Your task to perform on an android device: choose inbox layout in the gmail app Image 0: 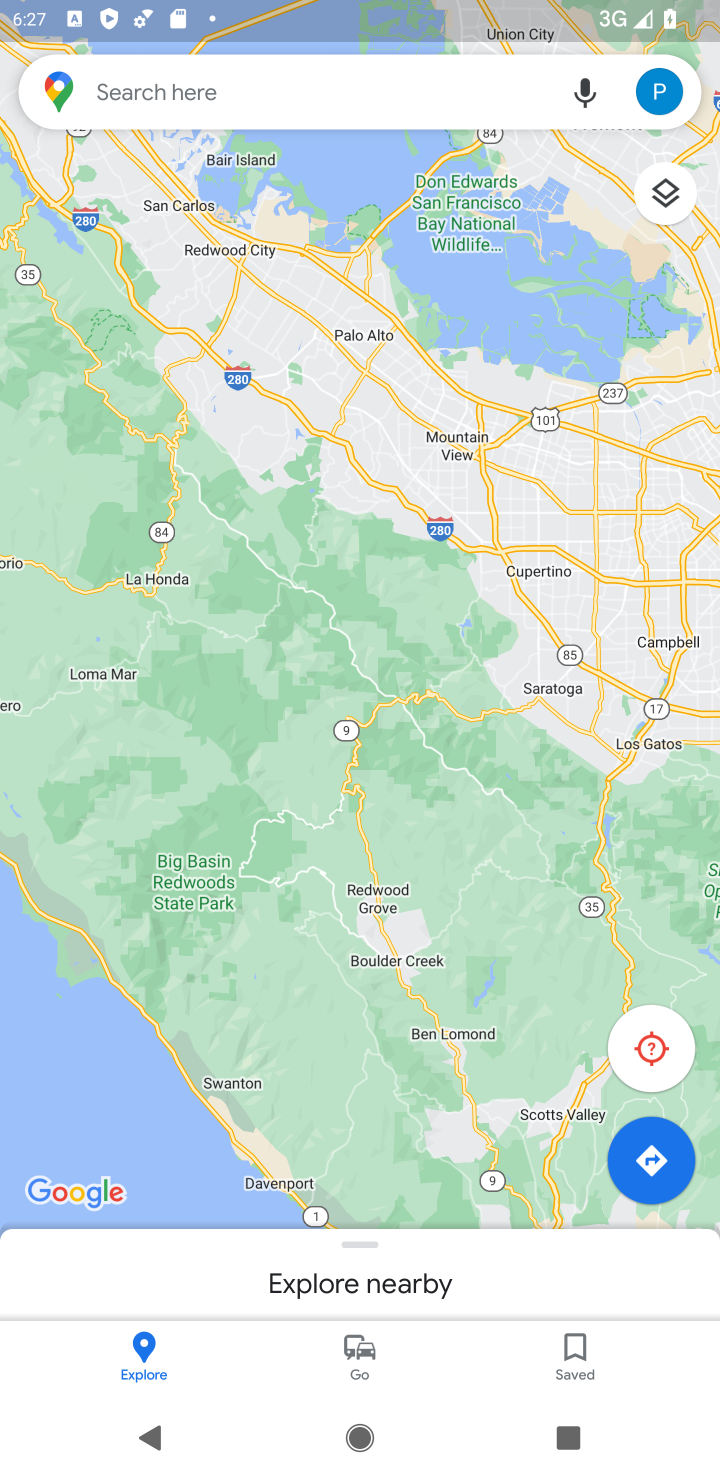
Step 0: press home button
Your task to perform on an android device: choose inbox layout in the gmail app Image 1: 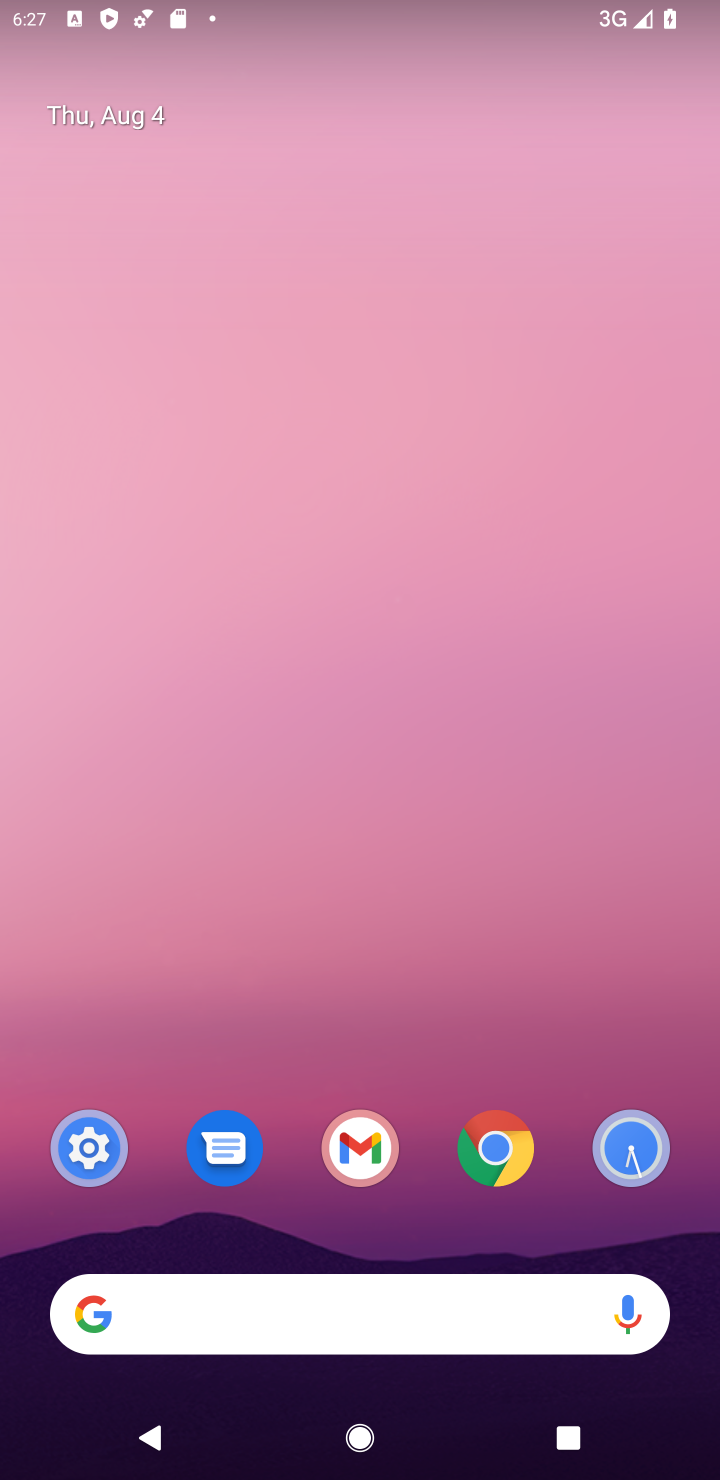
Step 1: click (356, 1147)
Your task to perform on an android device: choose inbox layout in the gmail app Image 2: 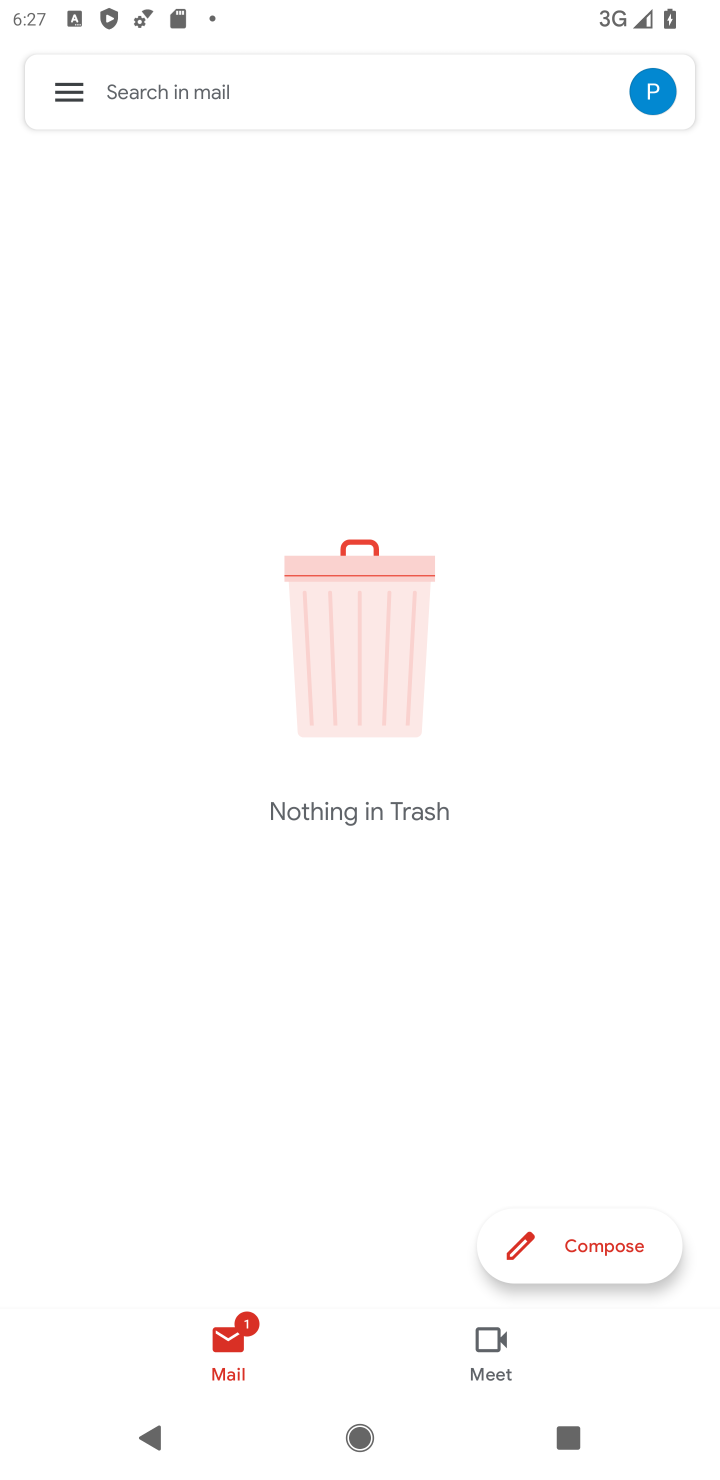
Step 2: click (59, 90)
Your task to perform on an android device: choose inbox layout in the gmail app Image 3: 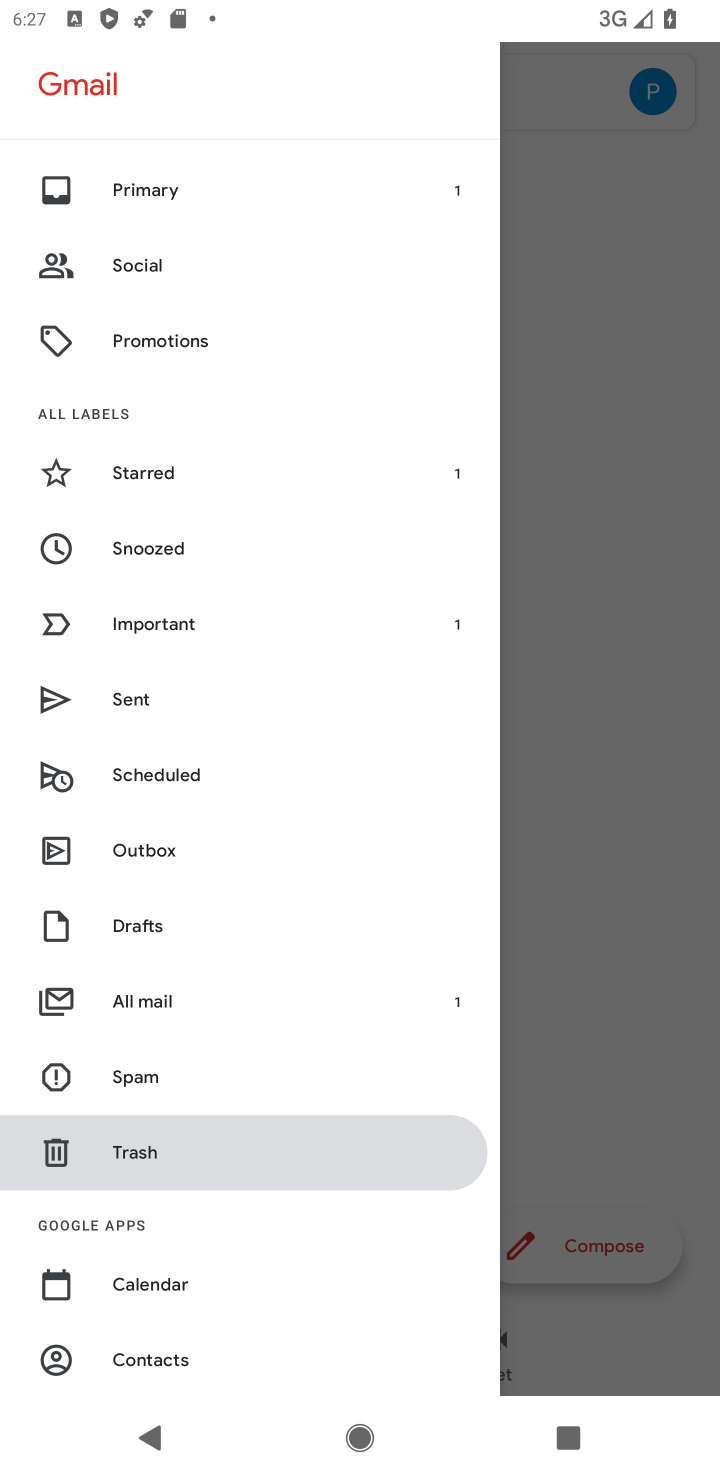
Step 3: drag from (329, 1191) to (301, 581)
Your task to perform on an android device: choose inbox layout in the gmail app Image 4: 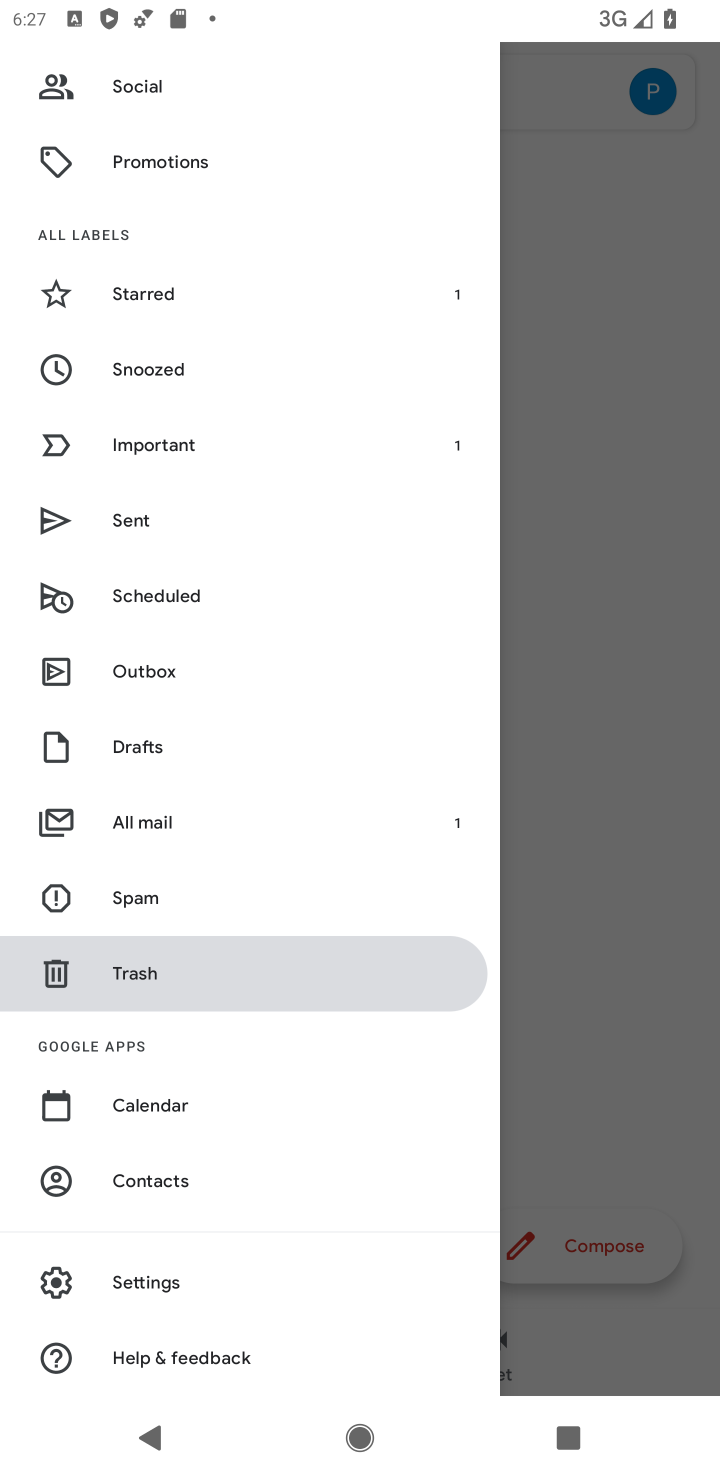
Step 4: click (114, 1286)
Your task to perform on an android device: choose inbox layout in the gmail app Image 5: 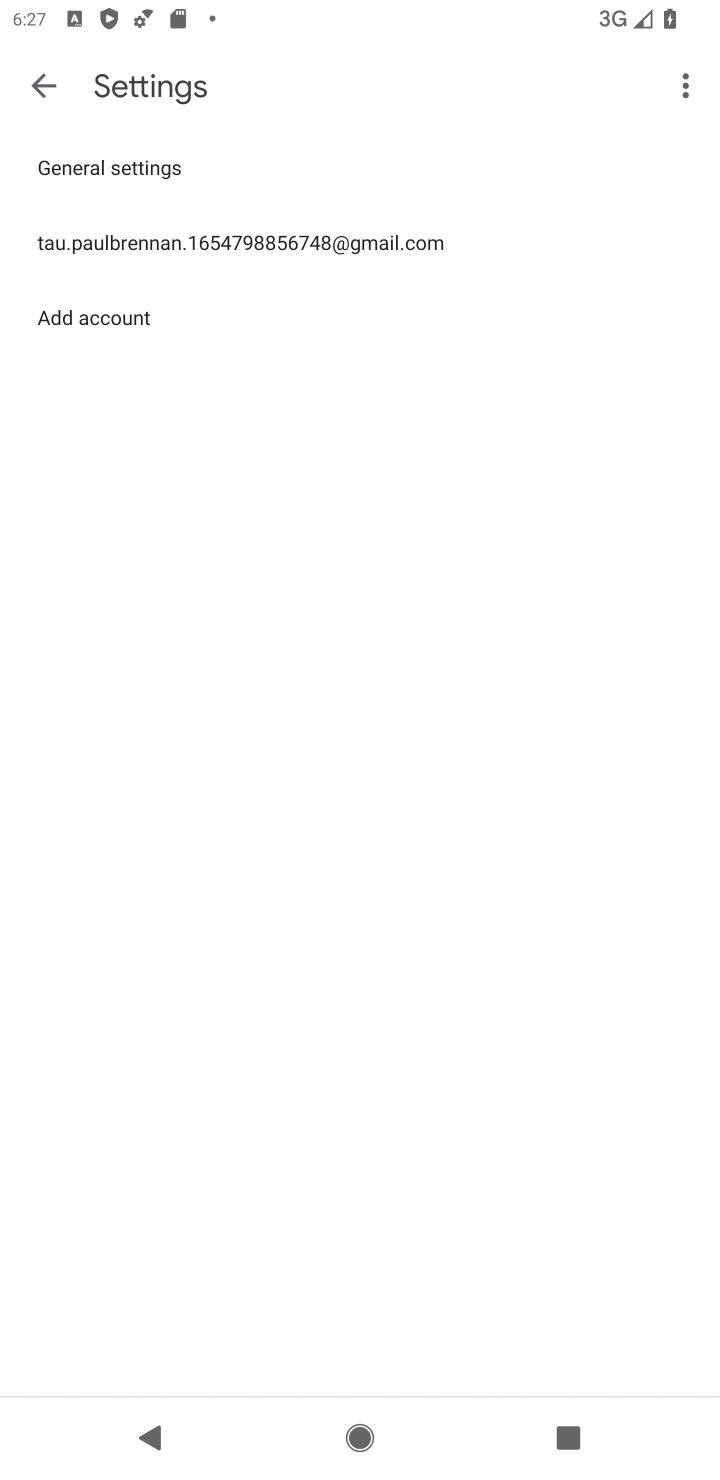
Step 5: click (239, 232)
Your task to perform on an android device: choose inbox layout in the gmail app Image 6: 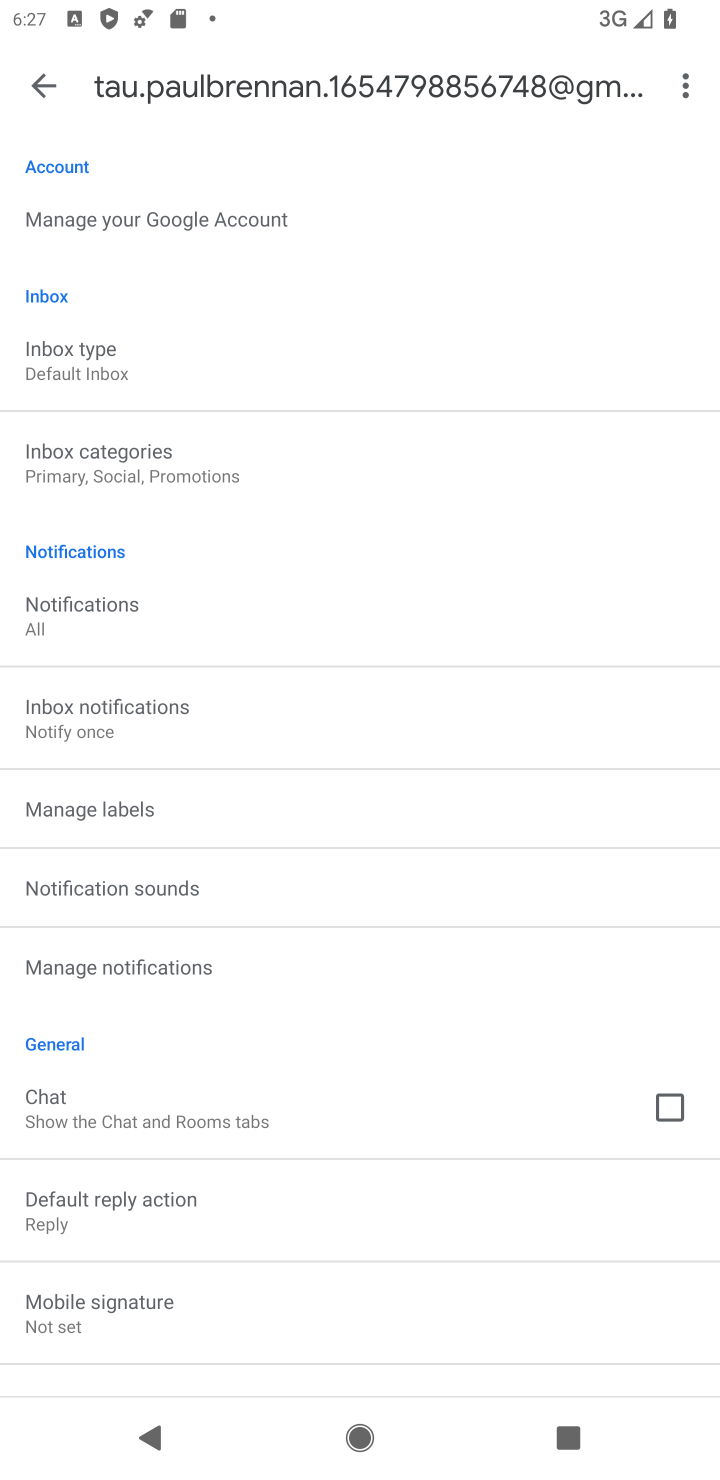
Step 6: click (86, 359)
Your task to perform on an android device: choose inbox layout in the gmail app Image 7: 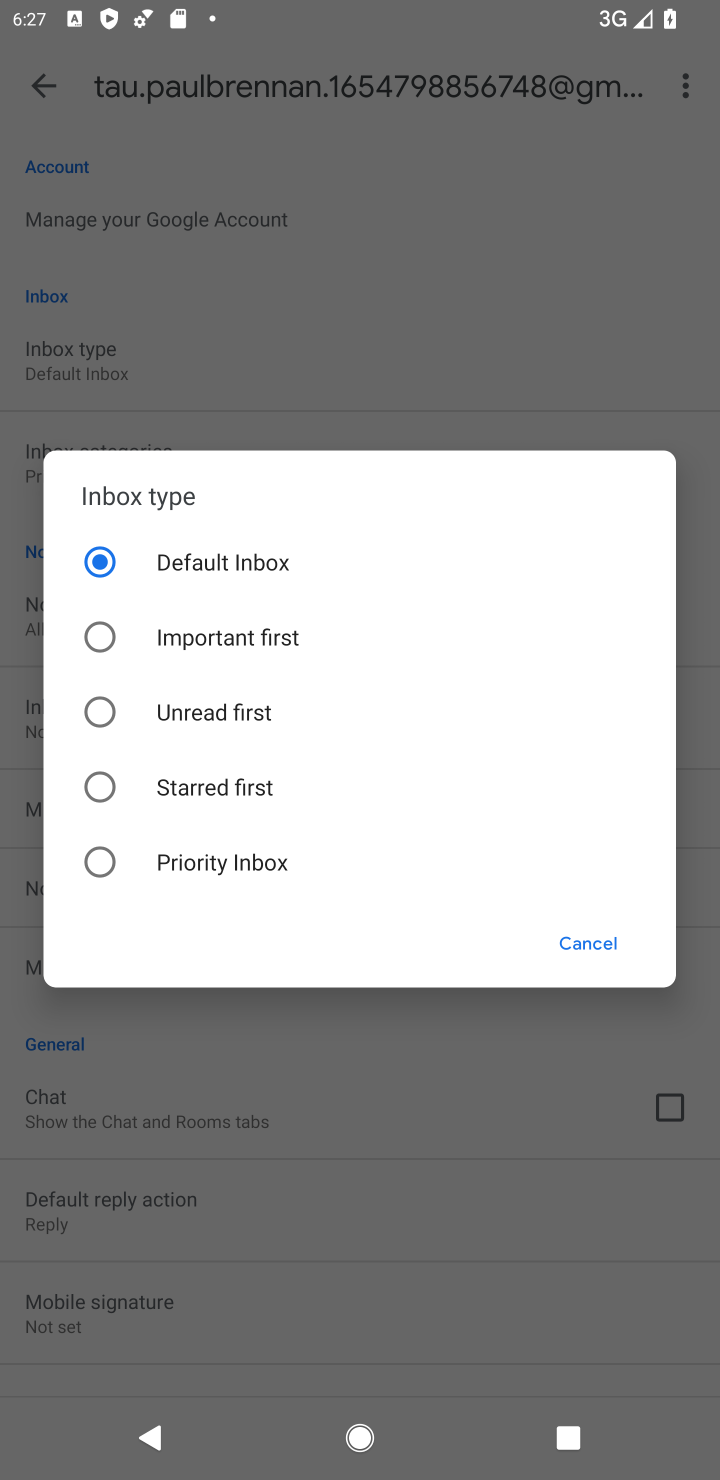
Step 7: click (93, 639)
Your task to perform on an android device: choose inbox layout in the gmail app Image 8: 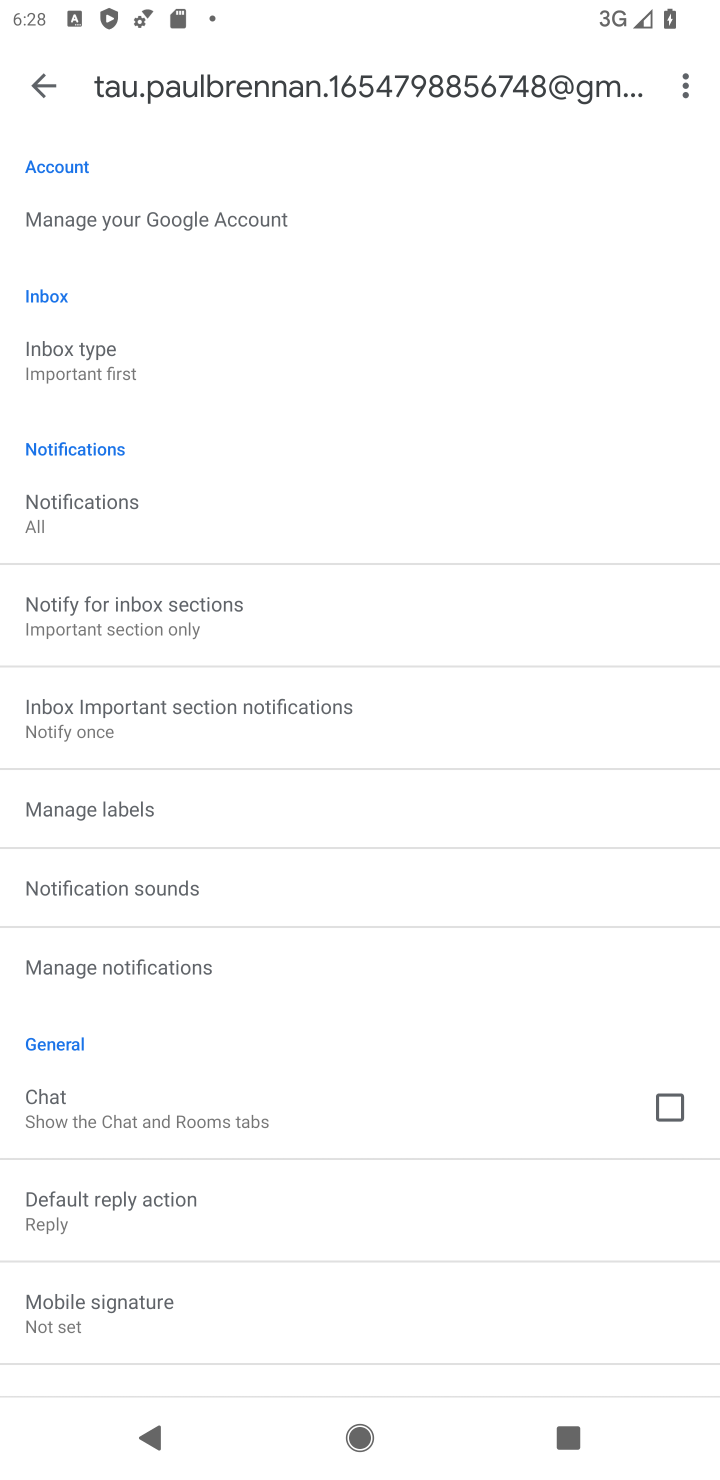
Step 8: task complete